Your task to perform on an android device: open chrome and create a bookmark for the current page Image 0: 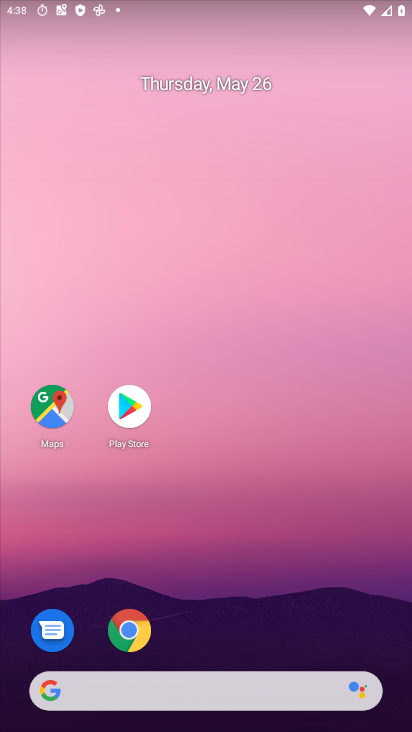
Step 0: click (133, 626)
Your task to perform on an android device: open chrome and create a bookmark for the current page Image 1: 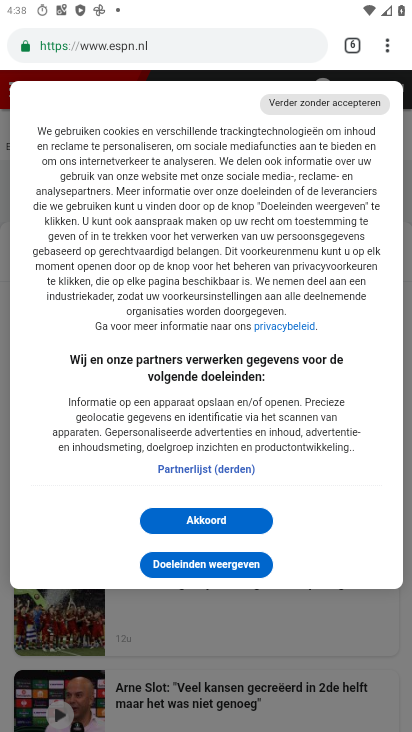
Step 1: click (388, 45)
Your task to perform on an android device: open chrome and create a bookmark for the current page Image 2: 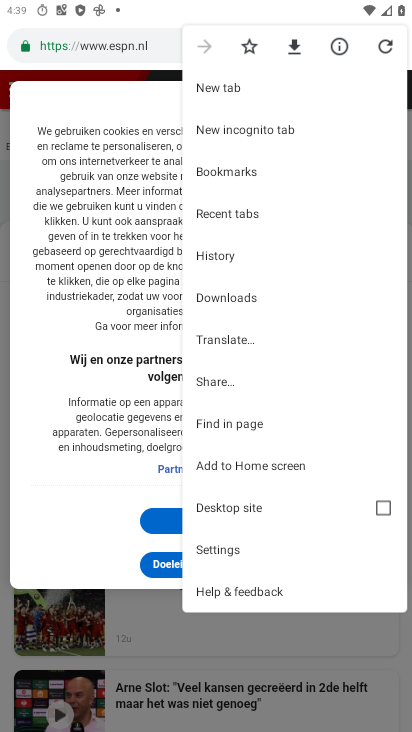
Step 2: click (249, 47)
Your task to perform on an android device: open chrome and create a bookmark for the current page Image 3: 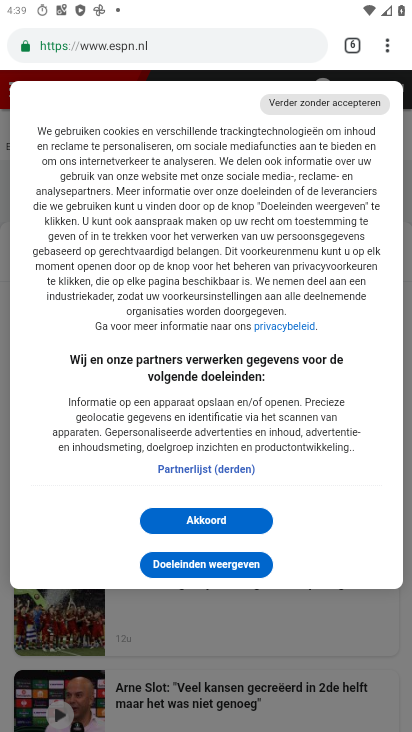
Step 3: task complete